Your task to perform on an android device: Search for sushi restaurants on Maps Image 0: 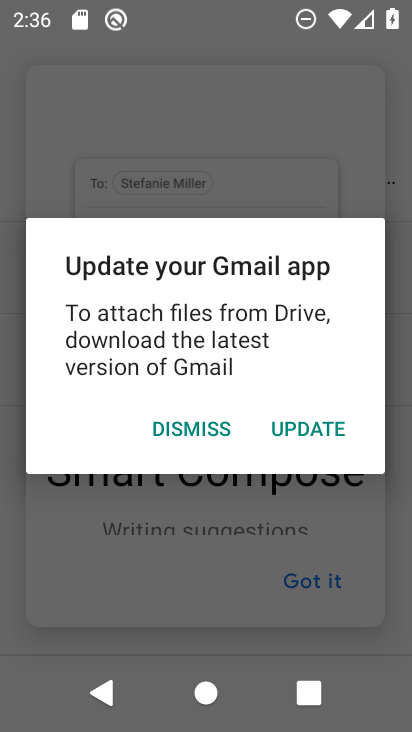
Step 0: press home button
Your task to perform on an android device: Search for sushi restaurants on Maps Image 1: 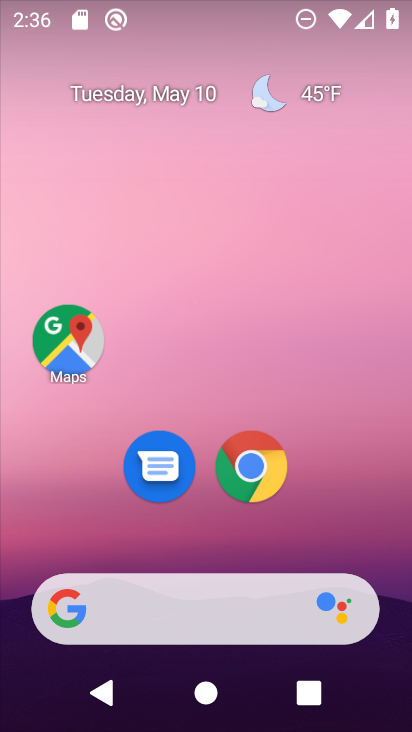
Step 1: drag from (344, 532) to (381, 23)
Your task to perform on an android device: Search for sushi restaurants on Maps Image 2: 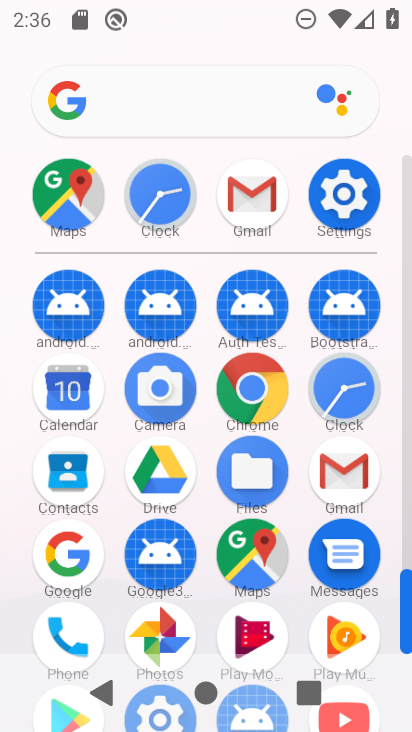
Step 2: click (228, 544)
Your task to perform on an android device: Search for sushi restaurants on Maps Image 3: 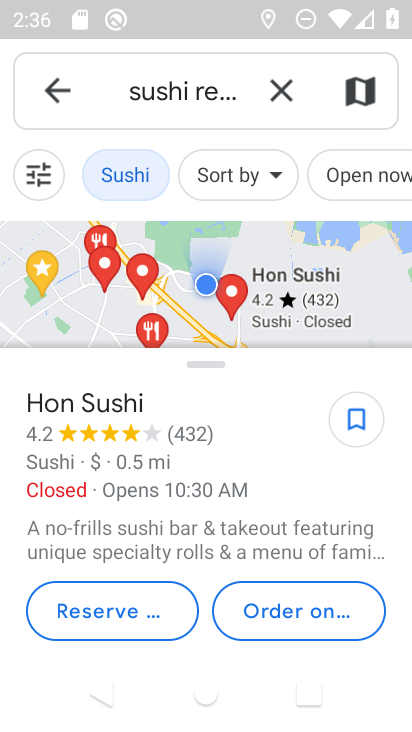
Step 3: task complete